Your task to perform on an android device: Open Amazon Image 0: 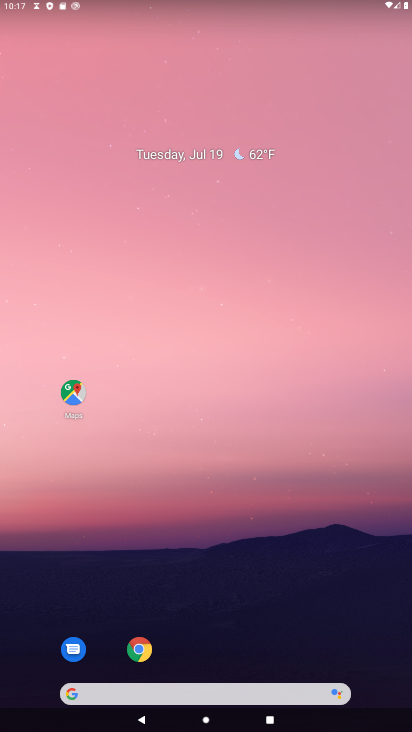
Step 0: drag from (291, 684) to (239, 260)
Your task to perform on an android device: Open Amazon Image 1: 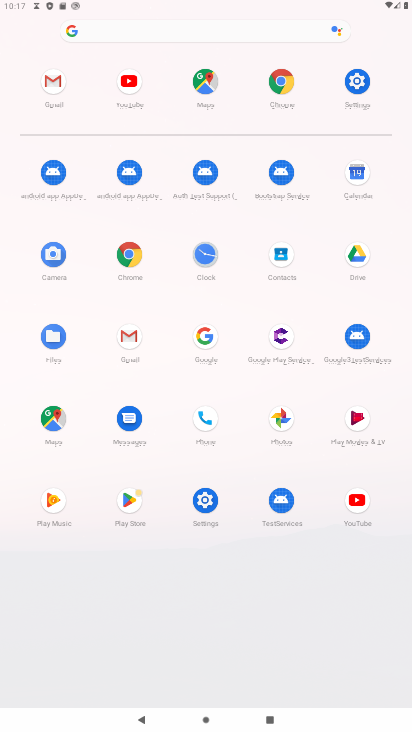
Step 1: click (140, 259)
Your task to perform on an android device: Open Amazon Image 2: 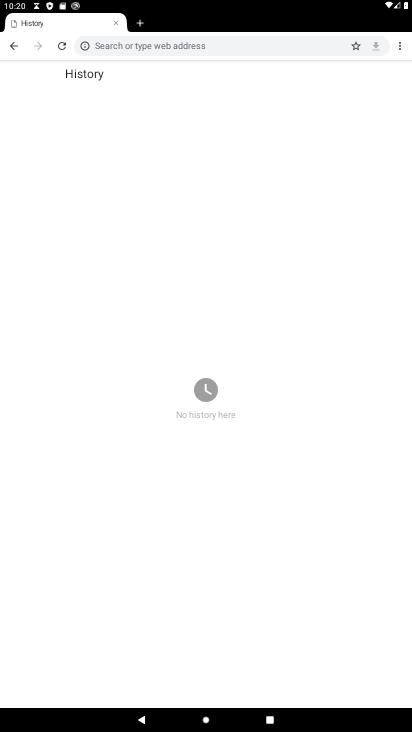
Step 2: press home button
Your task to perform on an android device: Open Amazon Image 3: 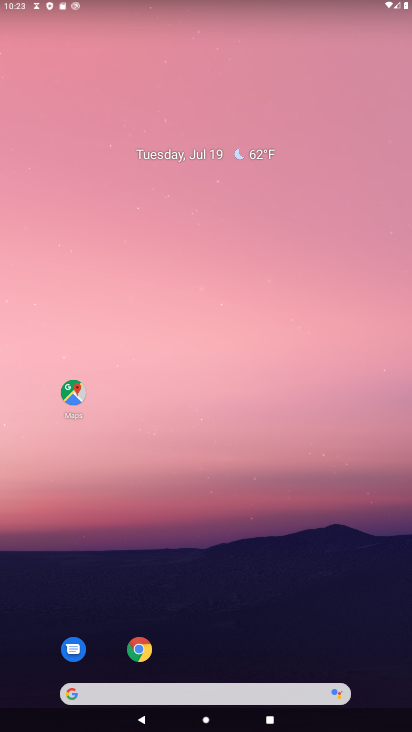
Step 3: drag from (198, 651) to (294, 31)
Your task to perform on an android device: Open Amazon Image 4: 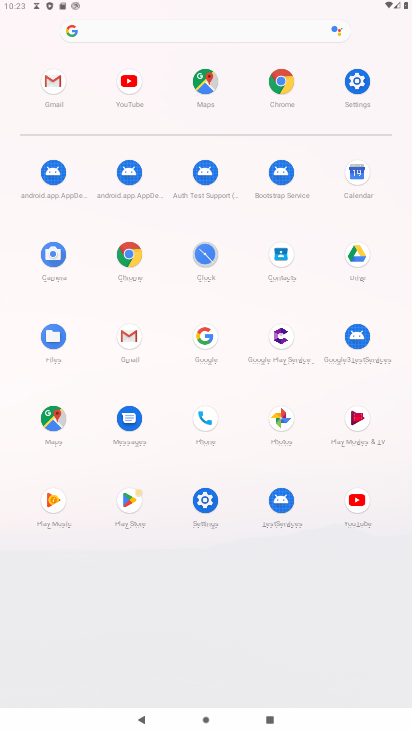
Step 4: click (141, 257)
Your task to perform on an android device: Open Amazon Image 5: 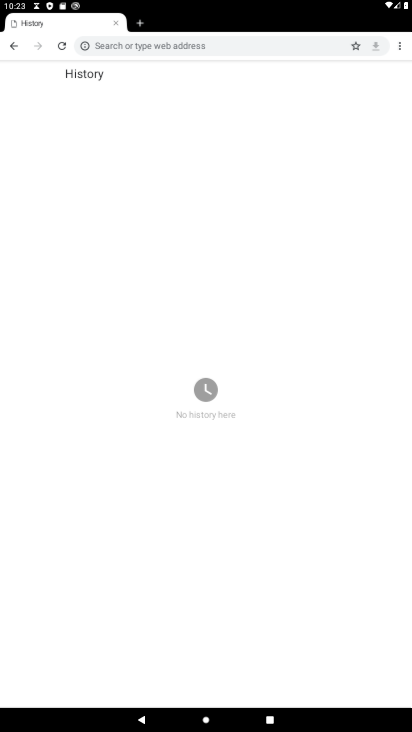
Step 5: click (241, 39)
Your task to perform on an android device: Open Amazon Image 6: 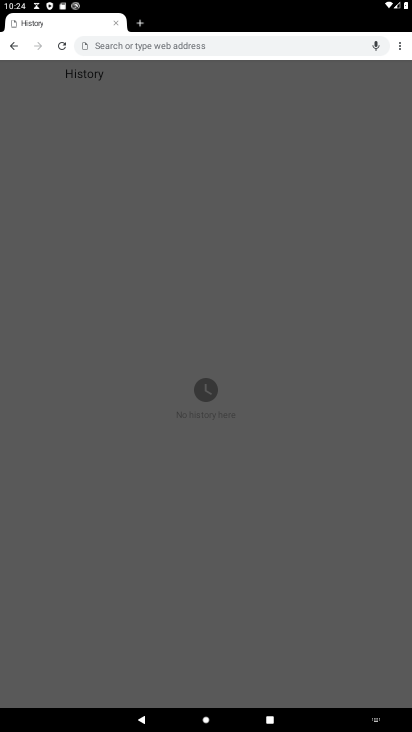
Step 6: type "amazon"
Your task to perform on an android device: Open Amazon Image 7: 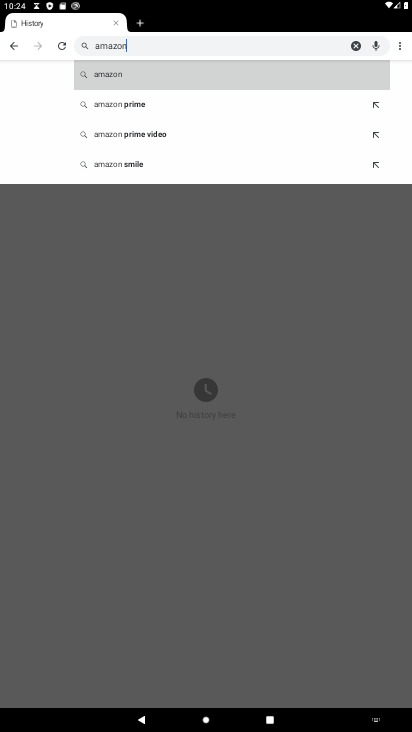
Step 7: click (350, 73)
Your task to perform on an android device: Open Amazon Image 8: 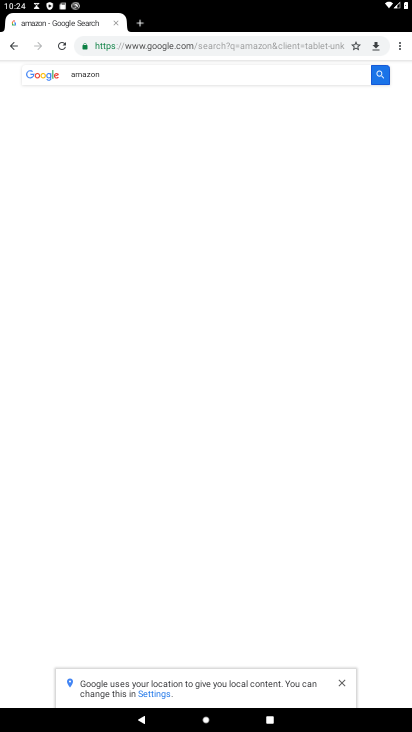
Step 8: task complete